Your task to perform on an android device: Open settings on Google Maps Image 0: 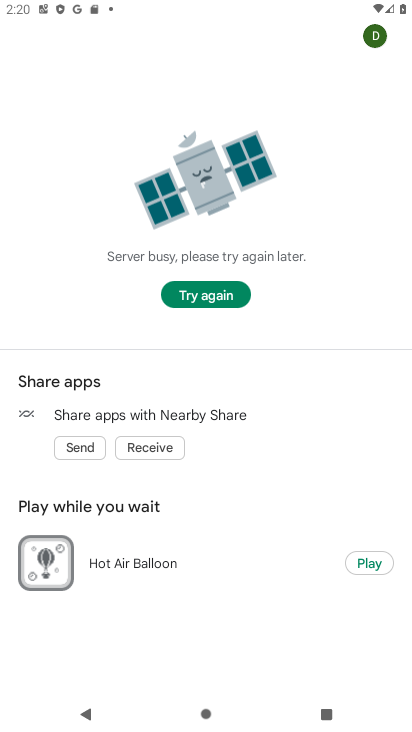
Step 0: click (221, 294)
Your task to perform on an android device: Open settings on Google Maps Image 1: 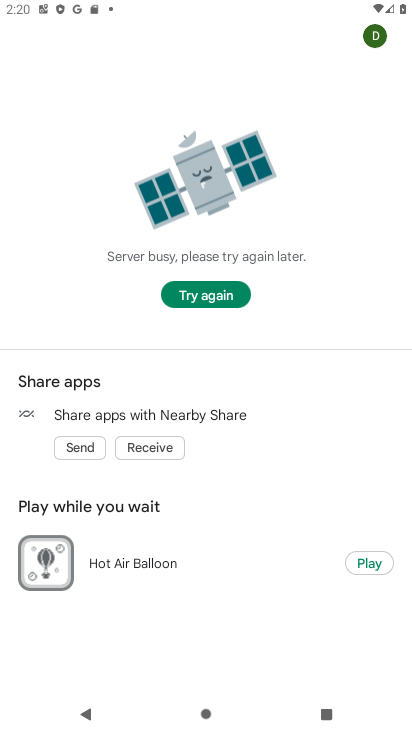
Step 1: click (220, 293)
Your task to perform on an android device: Open settings on Google Maps Image 2: 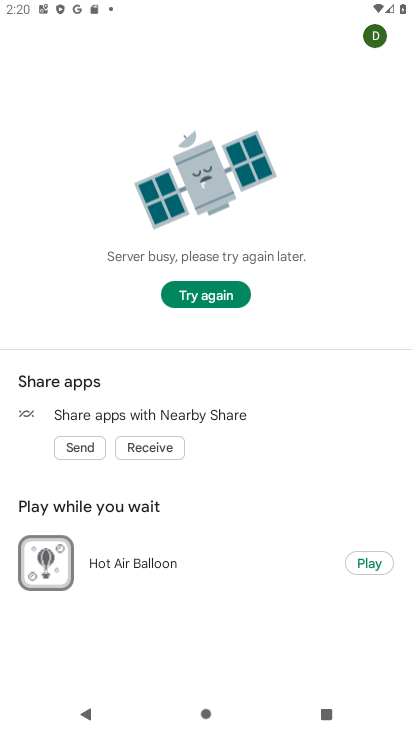
Step 2: press back button
Your task to perform on an android device: Open settings on Google Maps Image 3: 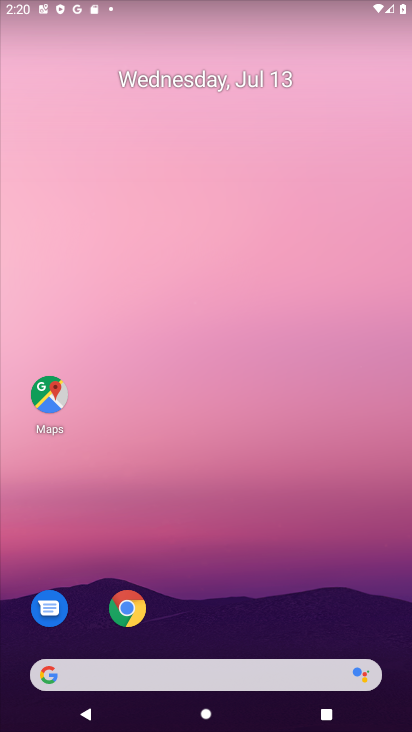
Step 3: drag from (255, 681) to (166, 138)
Your task to perform on an android device: Open settings on Google Maps Image 4: 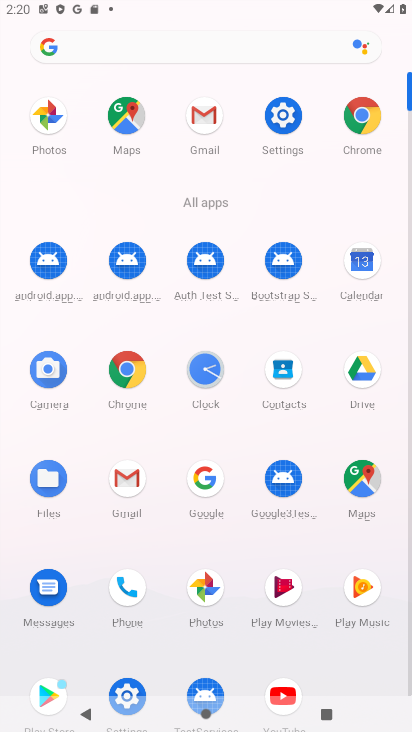
Step 4: click (343, 471)
Your task to perform on an android device: Open settings on Google Maps Image 5: 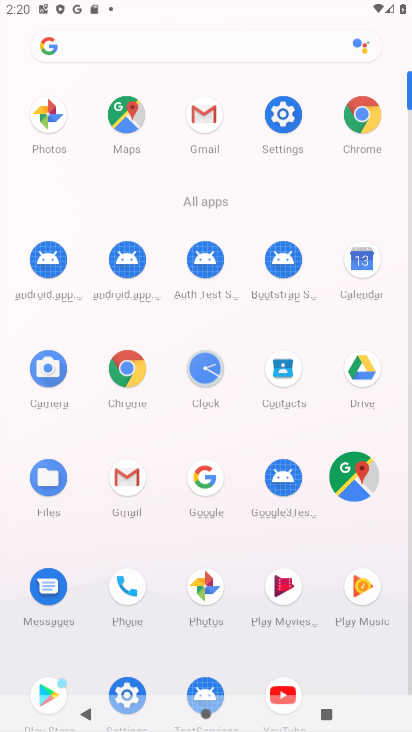
Step 5: click (344, 472)
Your task to perform on an android device: Open settings on Google Maps Image 6: 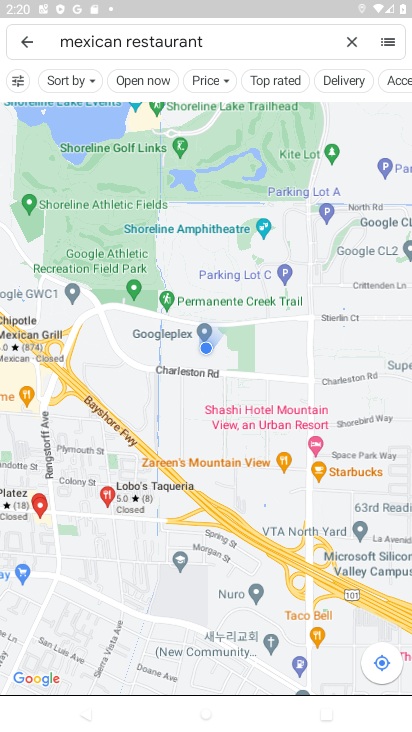
Step 6: click (20, 37)
Your task to perform on an android device: Open settings on Google Maps Image 7: 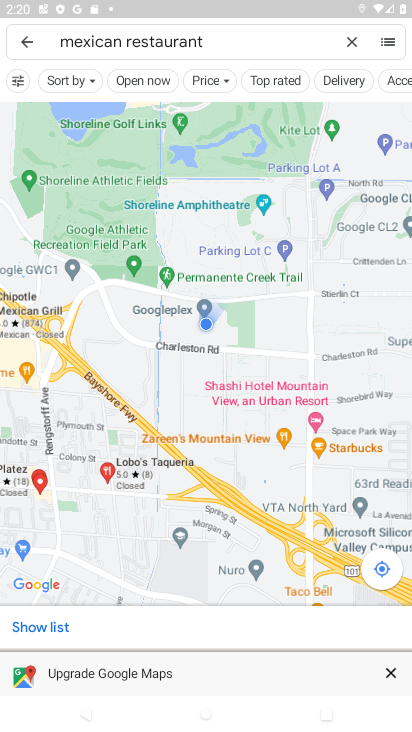
Step 7: click (20, 37)
Your task to perform on an android device: Open settings on Google Maps Image 8: 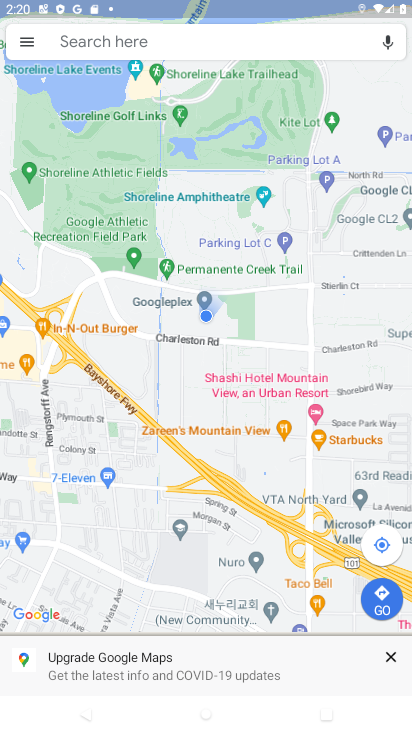
Step 8: drag from (21, 41) to (55, 303)
Your task to perform on an android device: Open settings on Google Maps Image 9: 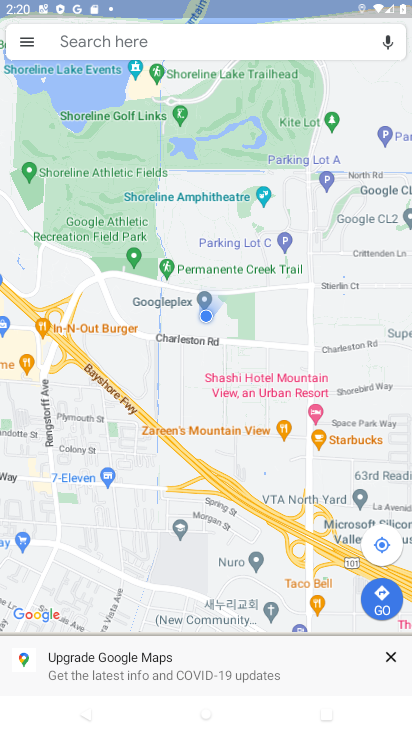
Step 9: click (23, 44)
Your task to perform on an android device: Open settings on Google Maps Image 10: 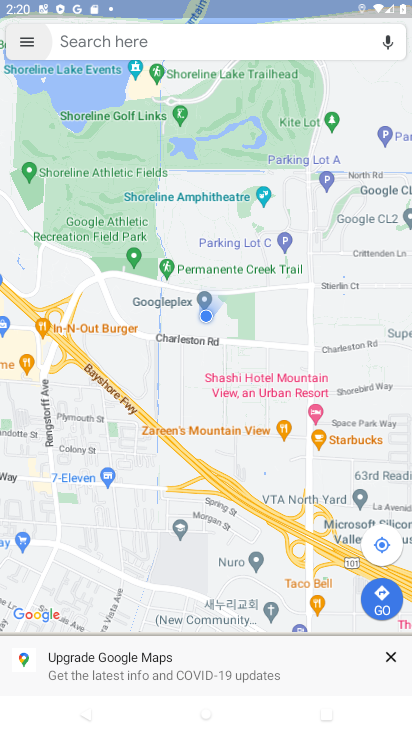
Step 10: click (23, 44)
Your task to perform on an android device: Open settings on Google Maps Image 11: 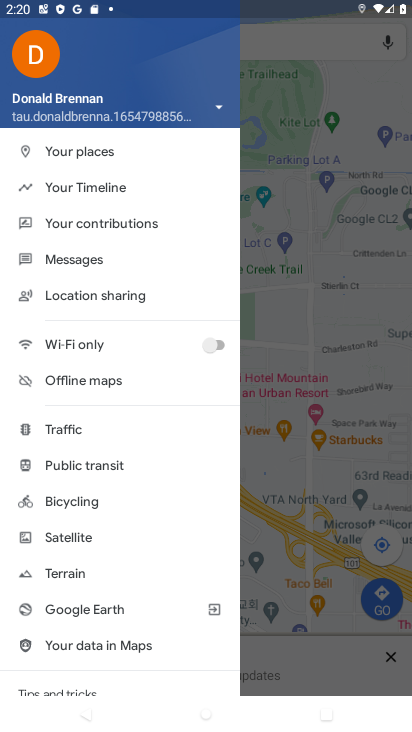
Step 11: click (93, 174)
Your task to perform on an android device: Open settings on Google Maps Image 12: 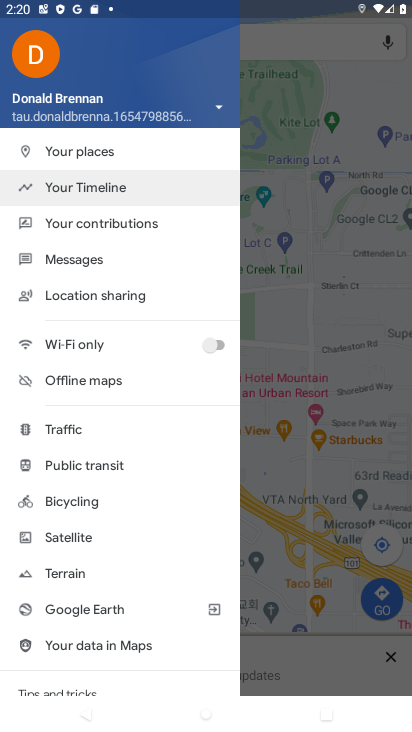
Step 12: click (88, 178)
Your task to perform on an android device: Open settings on Google Maps Image 13: 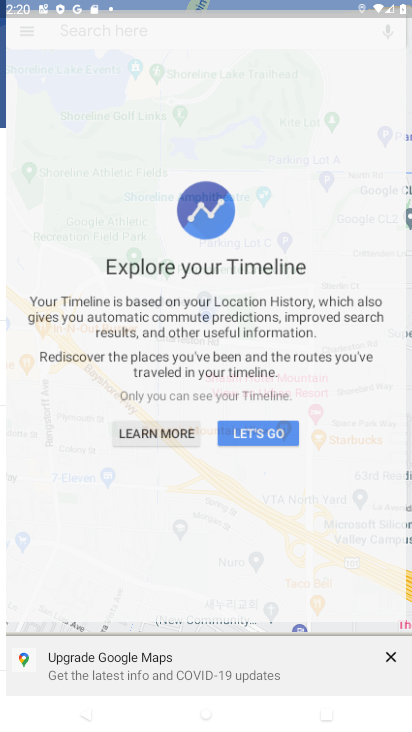
Step 13: click (88, 179)
Your task to perform on an android device: Open settings on Google Maps Image 14: 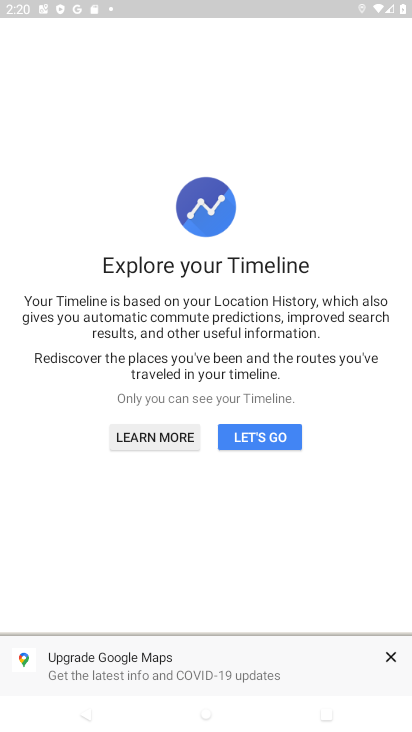
Step 14: click (244, 426)
Your task to perform on an android device: Open settings on Google Maps Image 15: 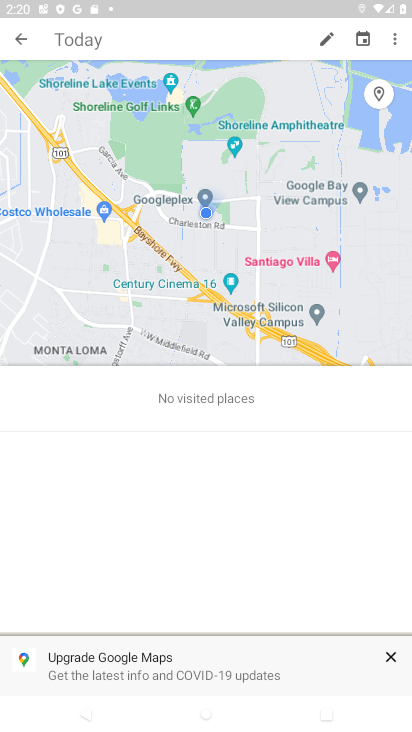
Step 15: click (389, 40)
Your task to perform on an android device: Open settings on Google Maps Image 16: 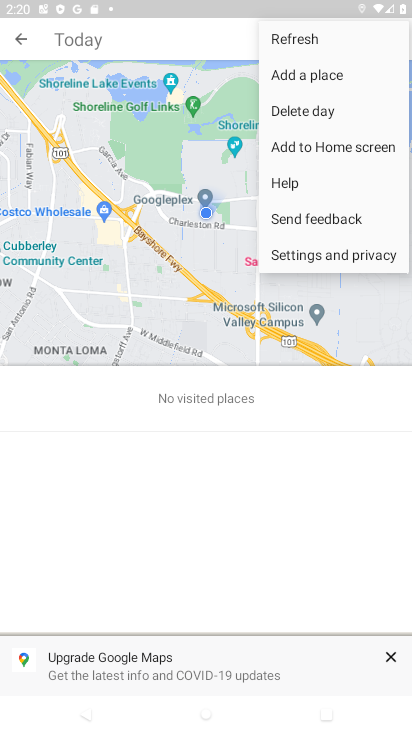
Step 16: click (294, 242)
Your task to perform on an android device: Open settings on Google Maps Image 17: 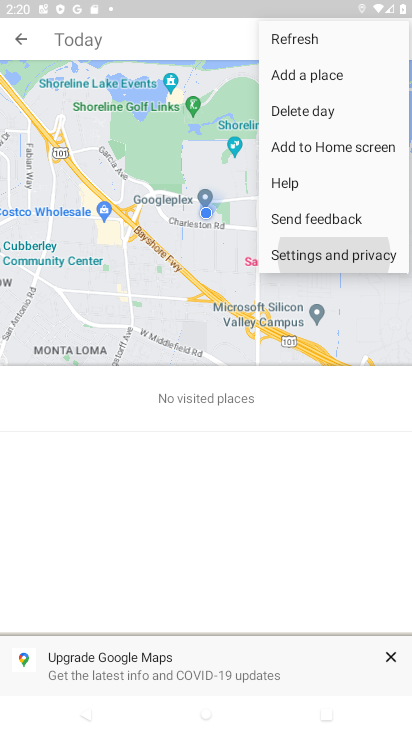
Step 17: click (294, 248)
Your task to perform on an android device: Open settings on Google Maps Image 18: 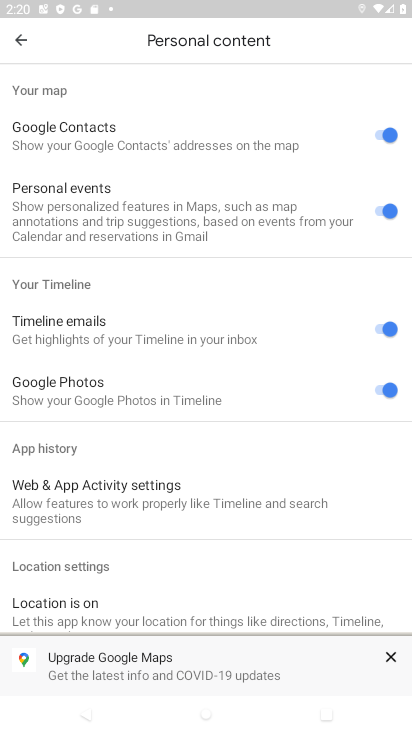
Step 18: task complete